Your task to perform on an android device: turn off data saver in the chrome app Image 0: 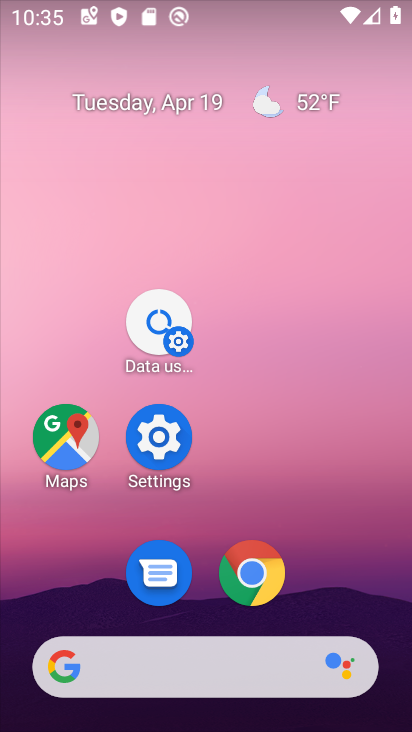
Step 0: click (267, 574)
Your task to perform on an android device: turn off data saver in the chrome app Image 1: 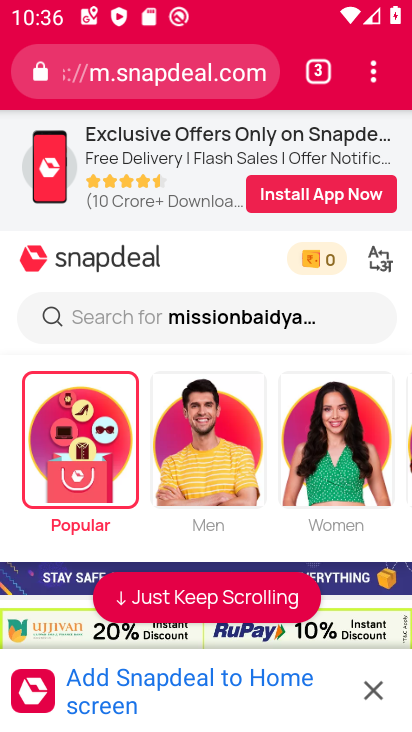
Step 1: click (376, 74)
Your task to perform on an android device: turn off data saver in the chrome app Image 2: 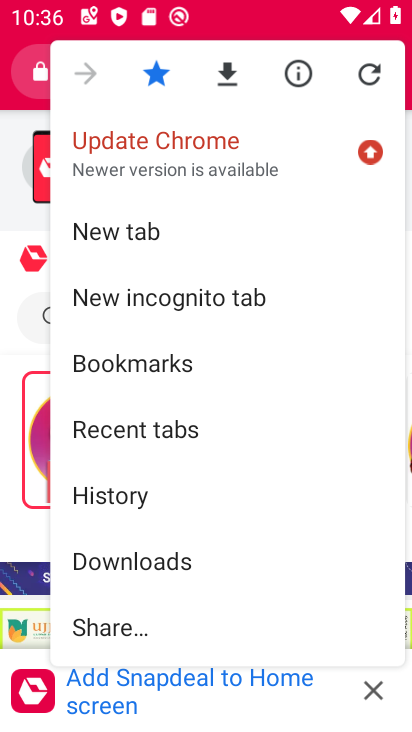
Step 2: drag from (258, 566) to (293, 99)
Your task to perform on an android device: turn off data saver in the chrome app Image 3: 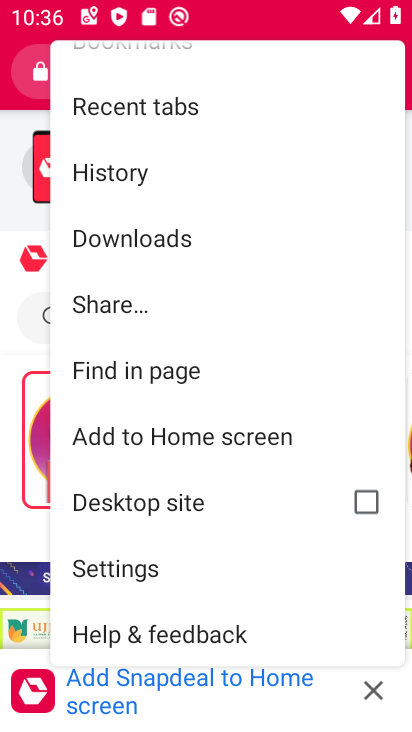
Step 3: click (104, 571)
Your task to perform on an android device: turn off data saver in the chrome app Image 4: 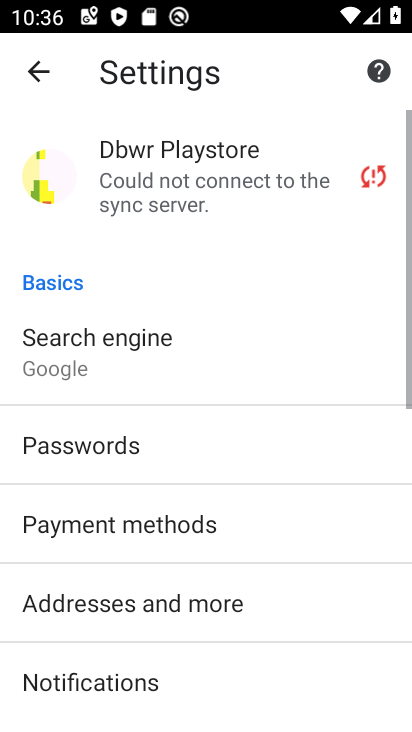
Step 4: drag from (229, 539) to (185, 14)
Your task to perform on an android device: turn off data saver in the chrome app Image 5: 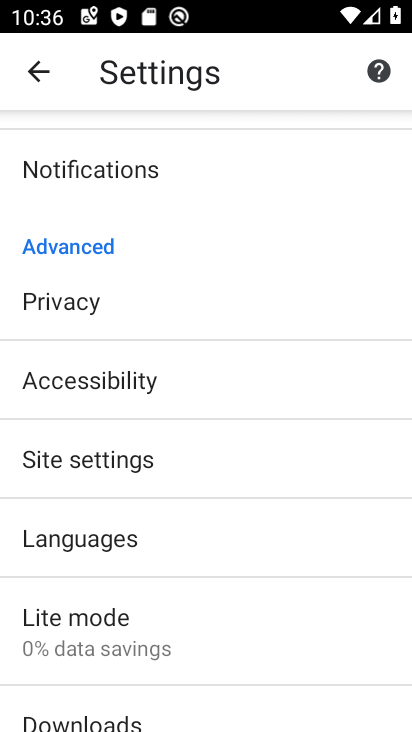
Step 5: click (88, 632)
Your task to perform on an android device: turn off data saver in the chrome app Image 6: 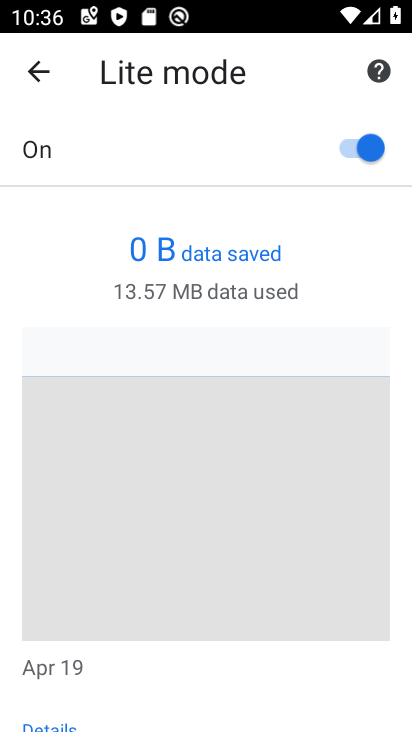
Step 6: click (367, 148)
Your task to perform on an android device: turn off data saver in the chrome app Image 7: 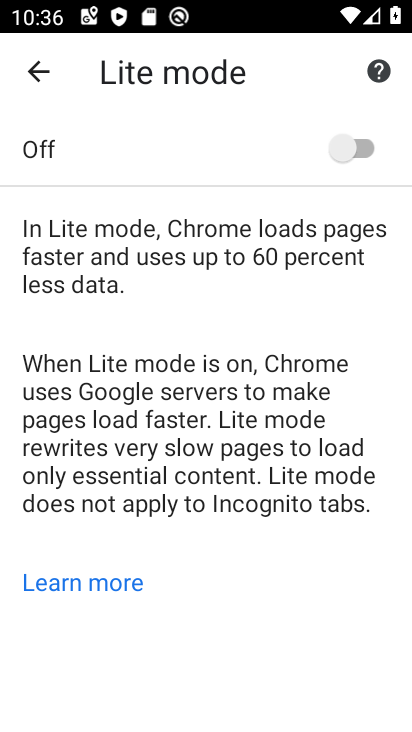
Step 7: task complete